Your task to perform on an android device: Go to sound settings Image 0: 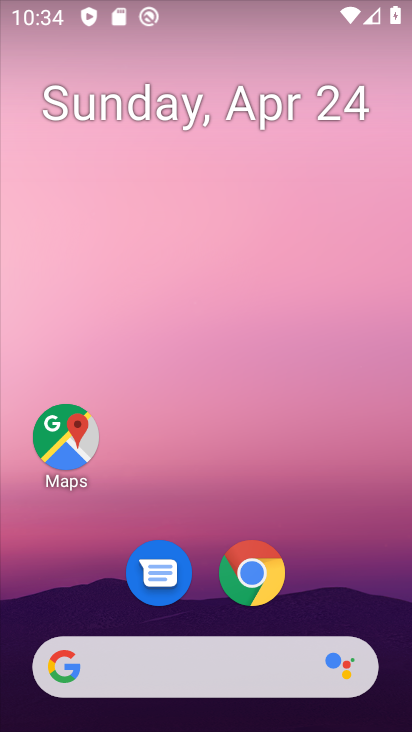
Step 0: press home button
Your task to perform on an android device: Go to sound settings Image 1: 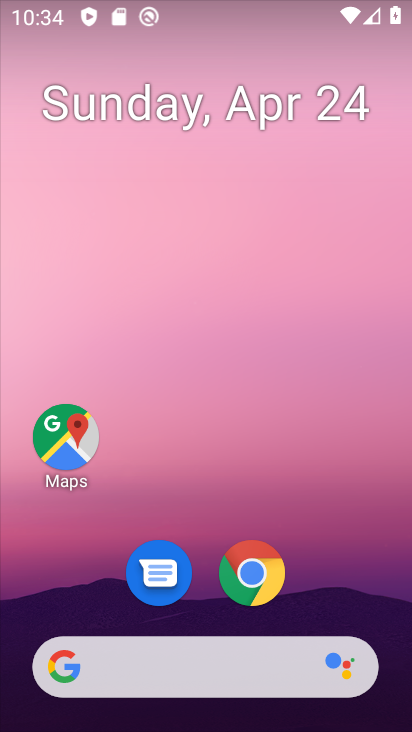
Step 1: drag from (332, 587) to (260, 66)
Your task to perform on an android device: Go to sound settings Image 2: 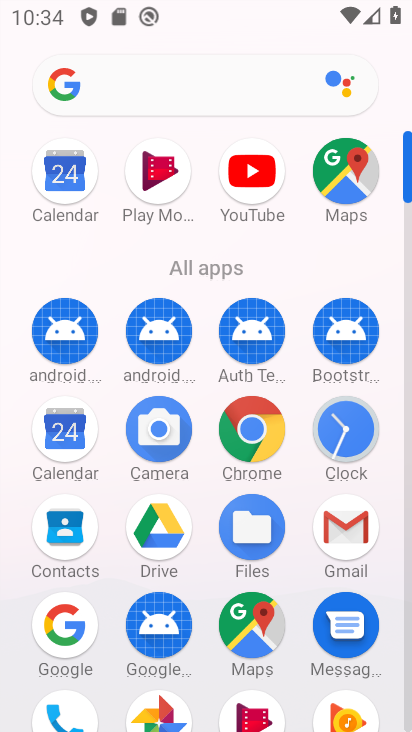
Step 2: drag from (271, 512) to (269, 249)
Your task to perform on an android device: Go to sound settings Image 3: 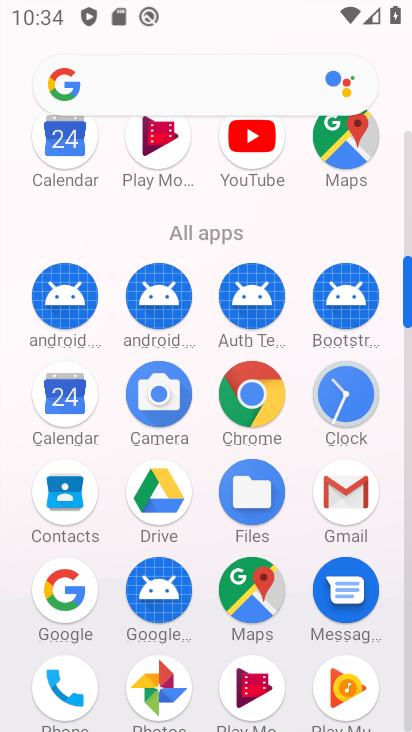
Step 3: drag from (197, 636) to (195, 346)
Your task to perform on an android device: Go to sound settings Image 4: 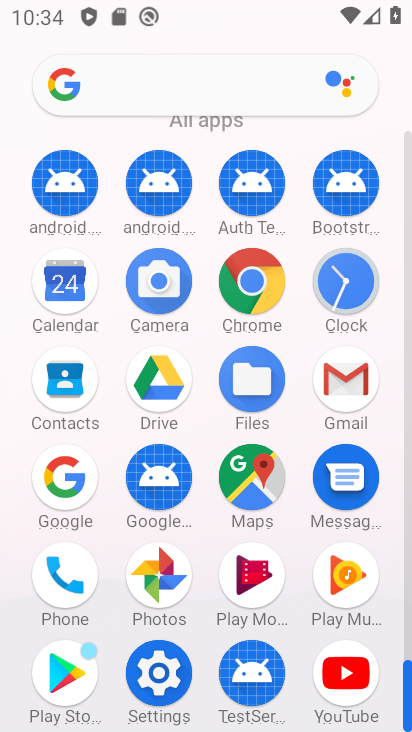
Step 4: click (154, 684)
Your task to perform on an android device: Go to sound settings Image 5: 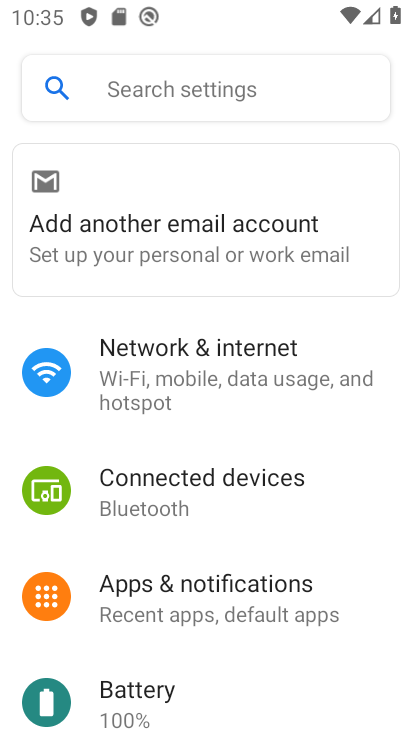
Step 5: drag from (161, 670) to (162, 386)
Your task to perform on an android device: Go to sound settings Image 6: 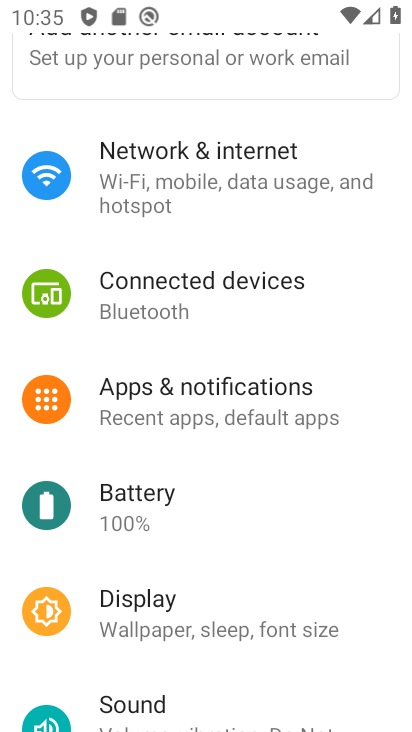
Step 6: drag from (187, 602) to (155, 410)
Your task to perform on an android device: Go to sound settings Image 7: 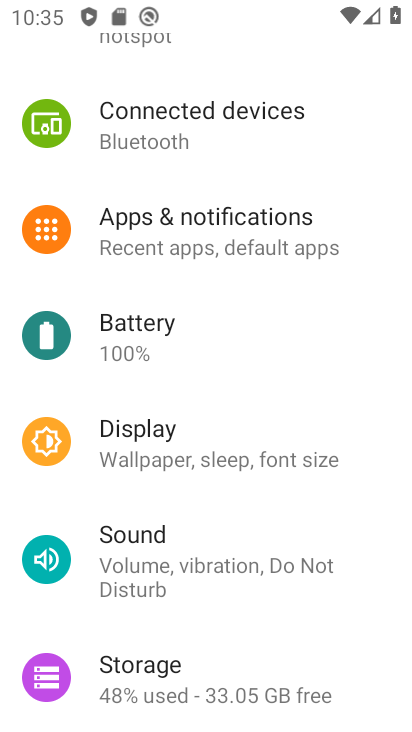
Step 7: click (175, 561)
Your task to perform on an android device: Go to sound settings Image 8: 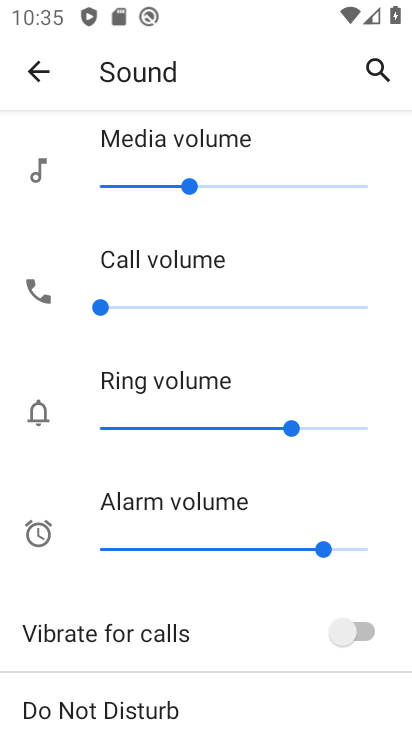
Step 8: task complete